Your task to perform on an android device: toggle data saver in the chrome app Image 0: 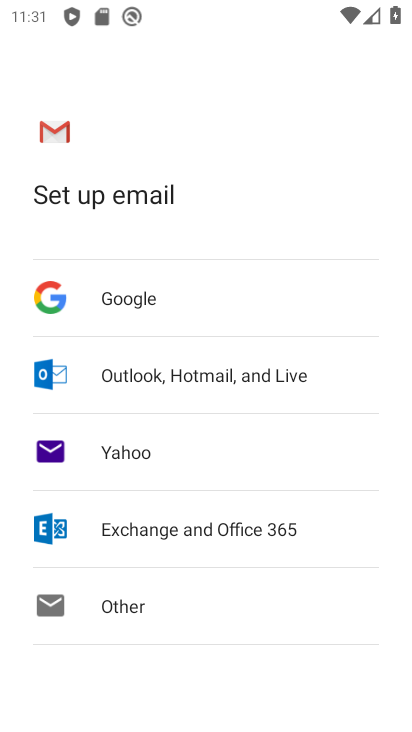
Step 0: press home button
Your task to perform on an android device: toggle data saver in the chrome app Image 1: 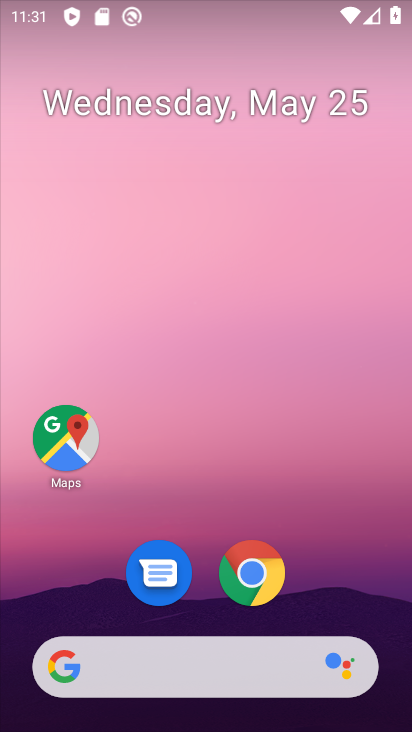
Step 1: click (246, 583)
Your task to perform on an android device: toggle data saver in the chrome app Image 2: 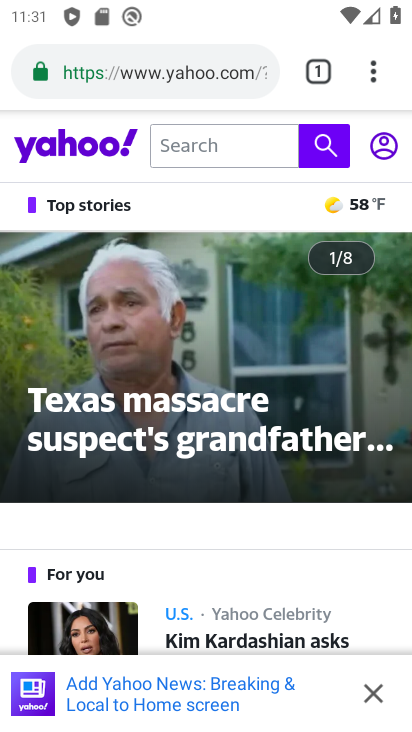
Step 2: drag from (363, 70) to (138, 570)
Your task to perform on an android device: toggle data saver in the chrome app Image 3: 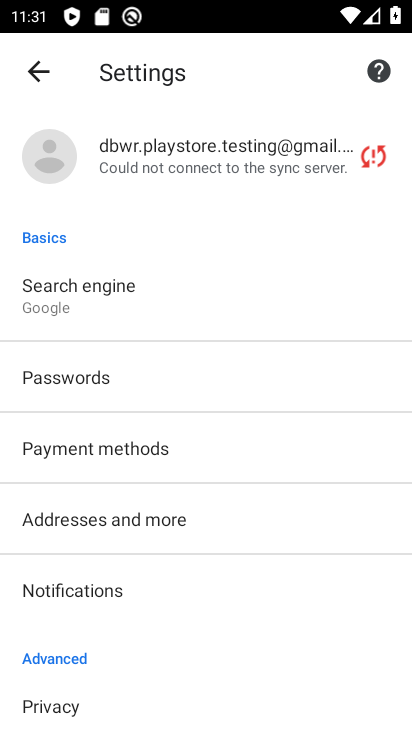
Step 3: drag from (76, 630) to (160, 69)
Your task to perform on an android device: toggle data saver in the chrome app Image 4: 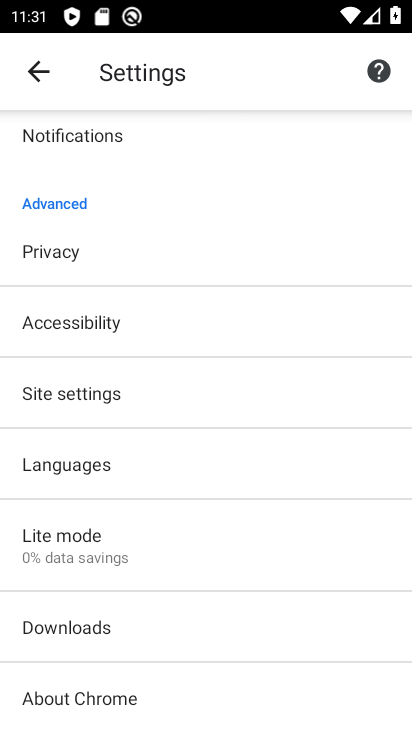
Step 4: click (83, 528)
Your task to perform on an android device: toggle data saver in the chrome app Image 5: 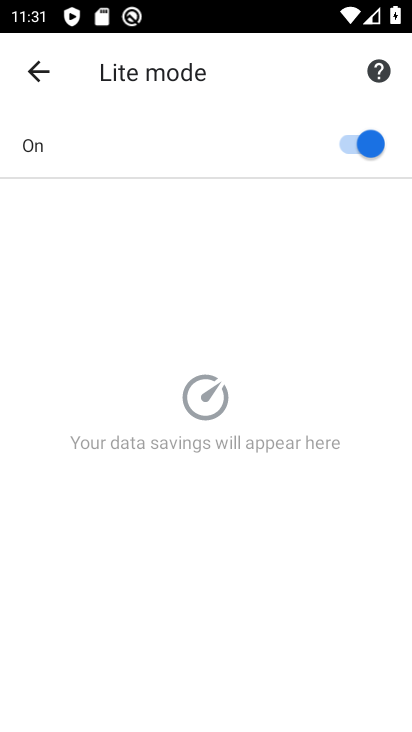
Step 5: click (360, 140)
Your task to perform on an android device: toggle data saver in the chrome app Image 6: 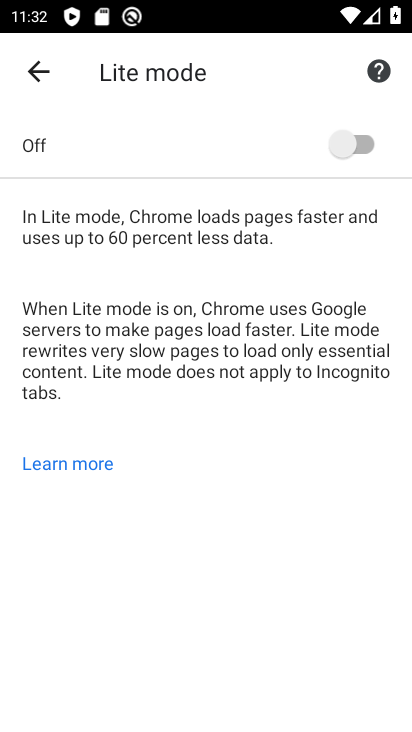
Step 6: task complete